Your task to perform on an android device: turn off sleep mode Image 0: 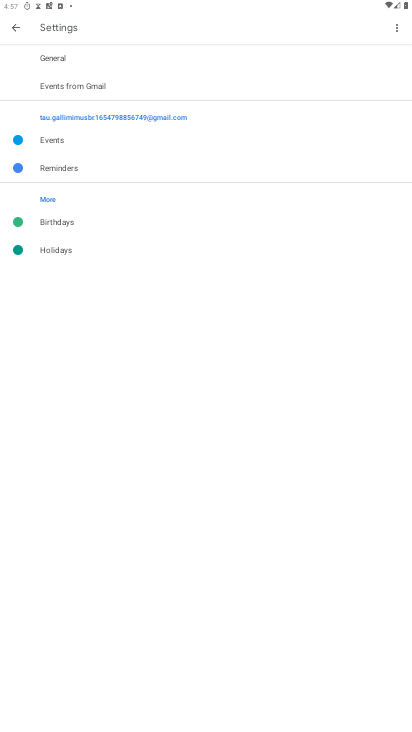
Step 0: task impossible